Your task to perform on an android device: turn on sleep mode Image 0: 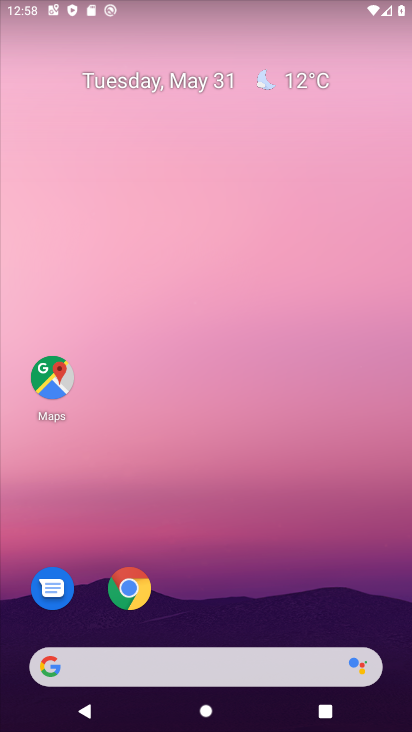
Step 0: drag from (184, 567) to (173, 136)
Your task to perform on an android device: turn on sleep mode Image 1: 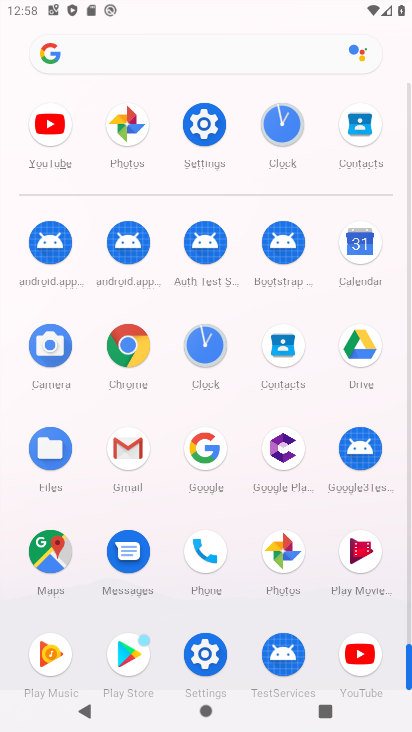
Step 1: task complete